Your task to perform on an android device: turn off sleep mode Image 0: 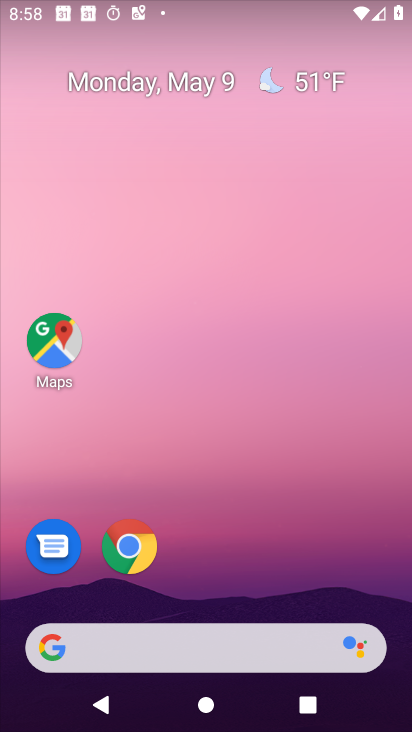
Step 0: drag from (221, 608) to (256, 132)
Your task to perform on an android device: turn off sleep mode Image 1: 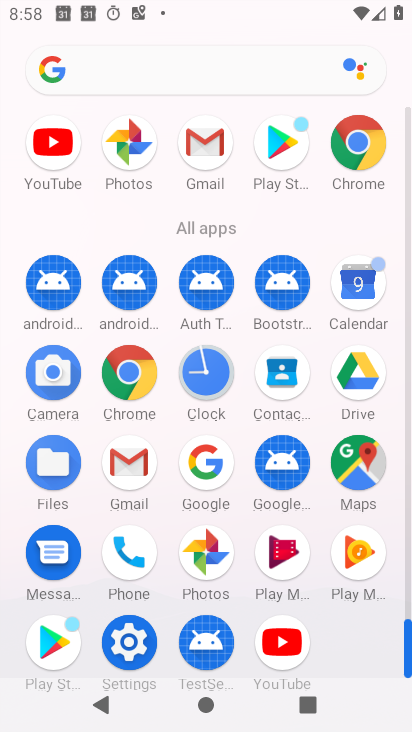
Step 1: click (118, 628)
Your task to perform on an android device: turn off sleep mode Image 2: 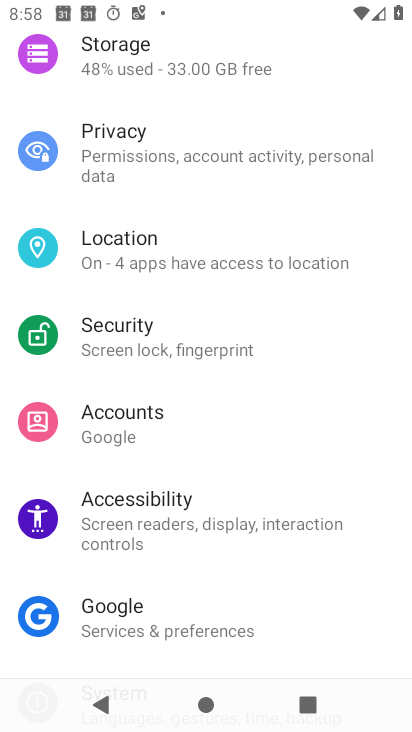
Step 2: drag from (270, 107) to (278, 563)
Your task to perform on an android device: turn off sleep mode Image 3: 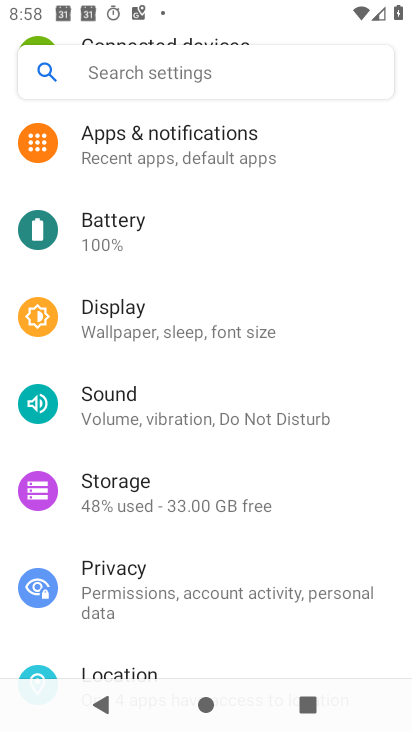
Step 3: drag from (254, 200) to (232, 423)
Your task to perform on an android device: turn off sleep mode Image 4: 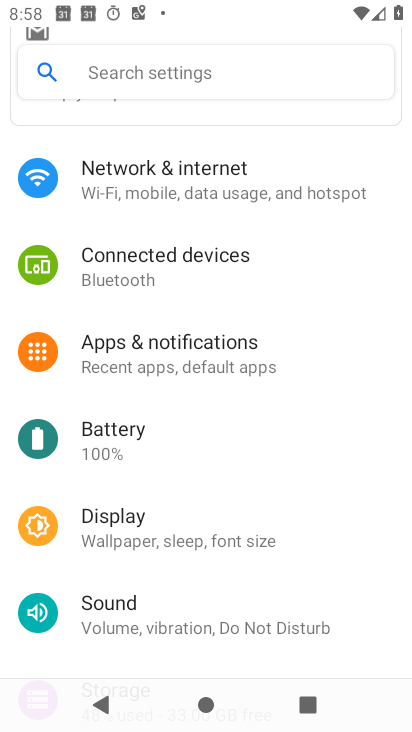
Step 4: click (204, 530)
Your task to perform on an android device: turn off sleep mode Image 5: 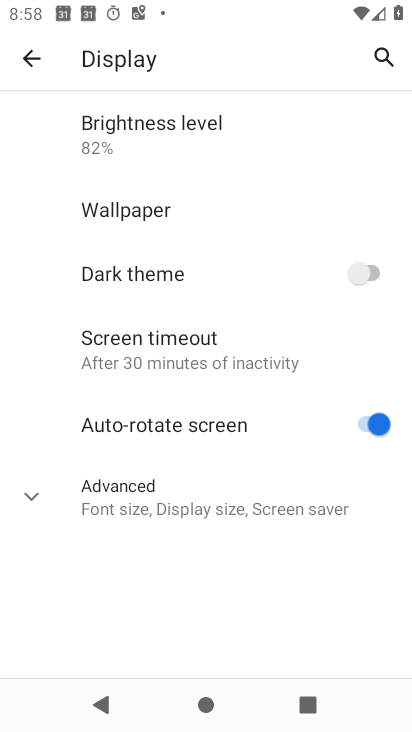
Step 5: task complete